Your task to perform on an android device: Open calendar and show me the second week of next month Image 0: 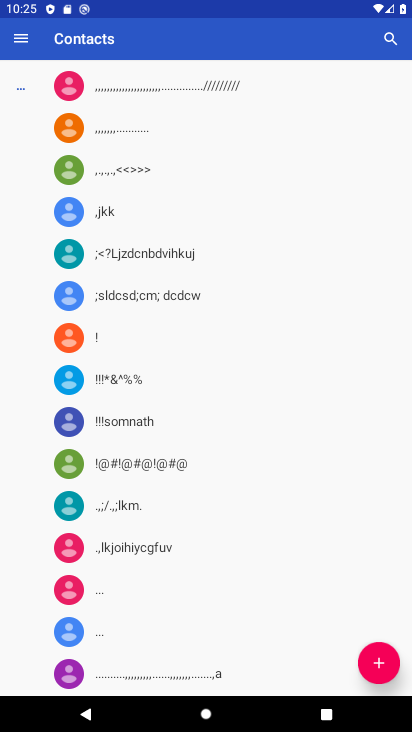
Step 0: press home button
Your task to perform on an android device: Open calendar and show me the second week of next month Image 1: 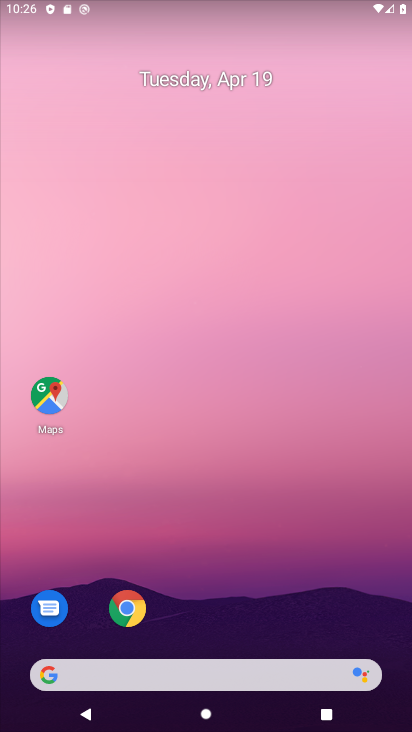
Step 1: drag from (228, 503) to (206, 248)
Your task to perform on an android device: Open calendar and show me the second week of next month Image 2: 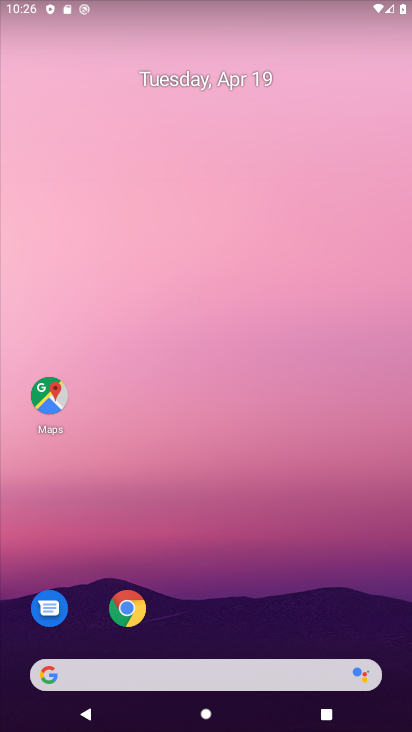
Step 2: drag from (289, 518) to (200, 147)
Your task to perform on an android device: Open calendar and show me the second week of next month Image 3: 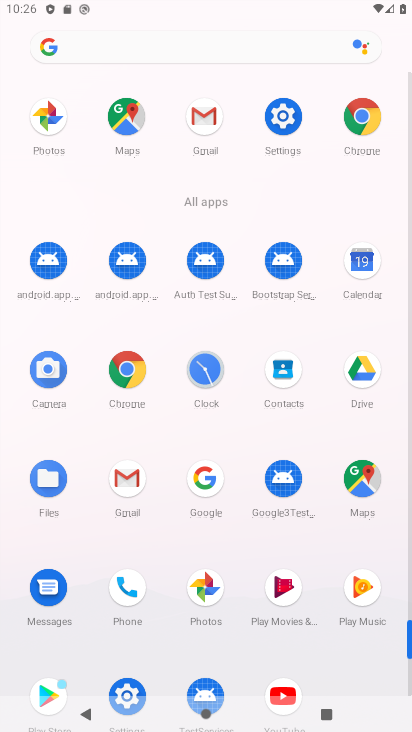
Step 3: click (364, 271)
Your task to perform on an android device: Open calendar and show me the second week of next month Image 4: 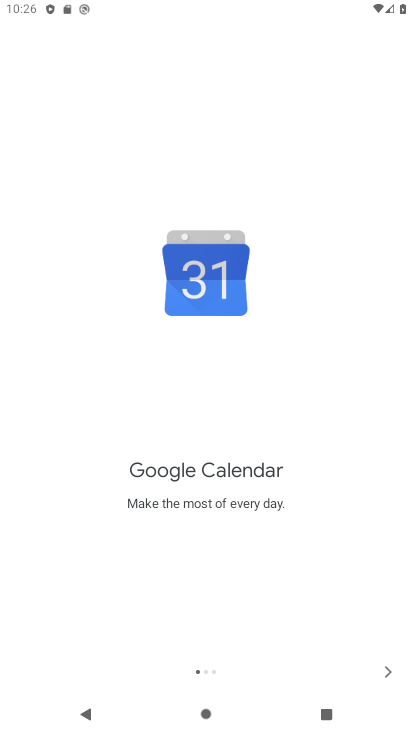
Step 4: click (386, 674)
Your task to perform on an android device: Open calendar and show me the second week of next month Image 5: 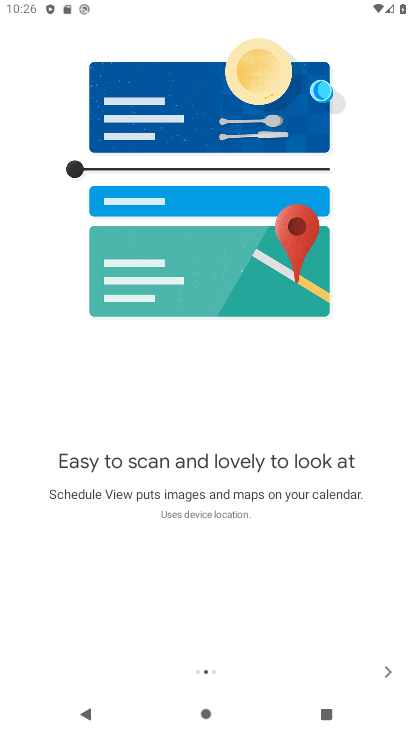
Step 5: click (386, 674)
Your task to perform on an android device: Open calendar and show me the second week of next month Image 6: 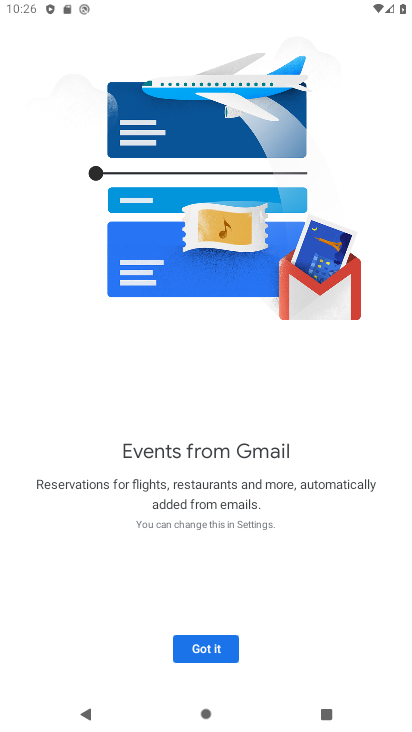
Step 6: click (223, 655)
Your task to perform on an android device: Open calendar and show me the second week of next month Image 7: 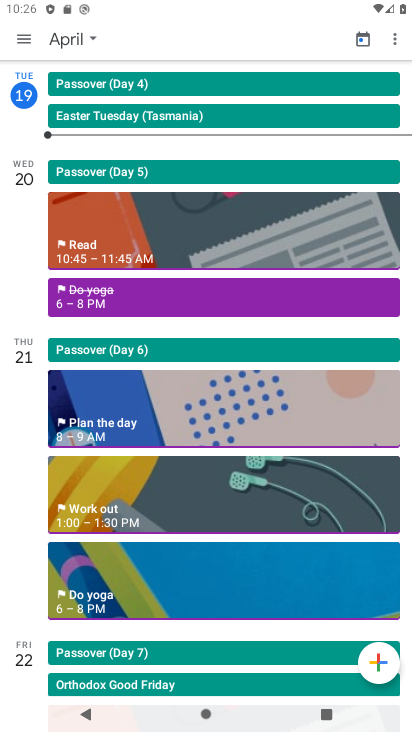
Step 7: click (20, 41)
Your task to perform on an android device: Open calendar and show me the second week of next month Image 8: 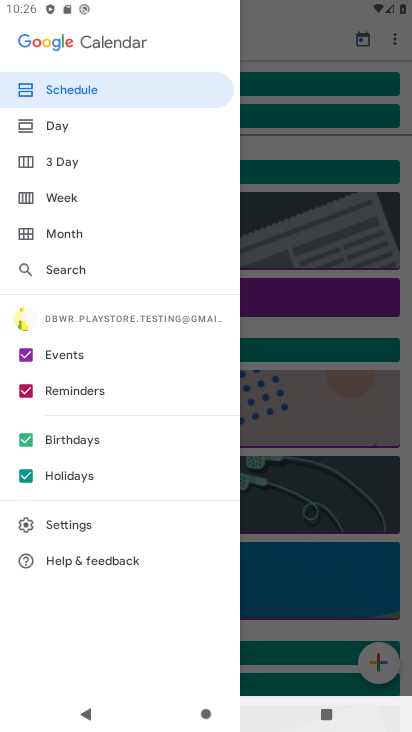
Step 8: click (71, 192)
Your task to perform on an android device: Open calendar and show me the second week of next month Image 9: 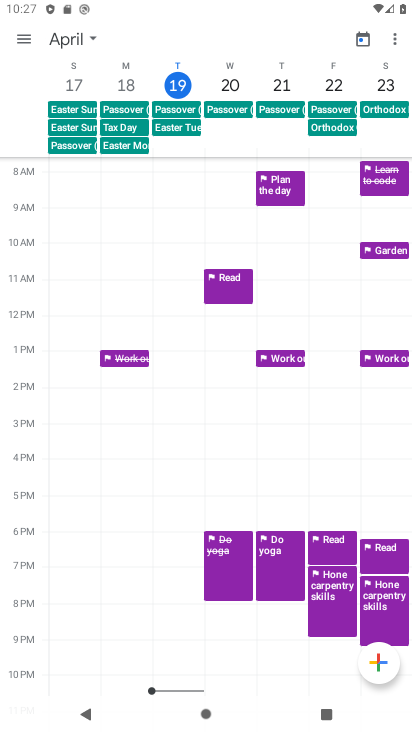
Step 9: click (89, 39)
Your task to perform on an android device: Open calendar and show me the second week of next month Image 10: 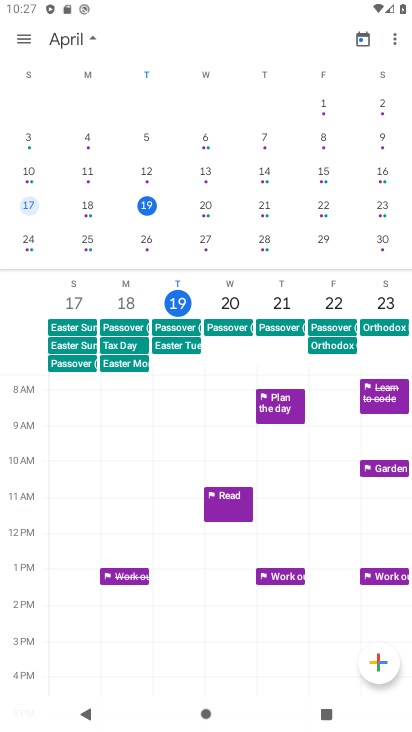
Step 10: drag from (373, 197) to (41, 201)
Your task to perform on an android device: Open calendar and show me the second week of next month Image 11: 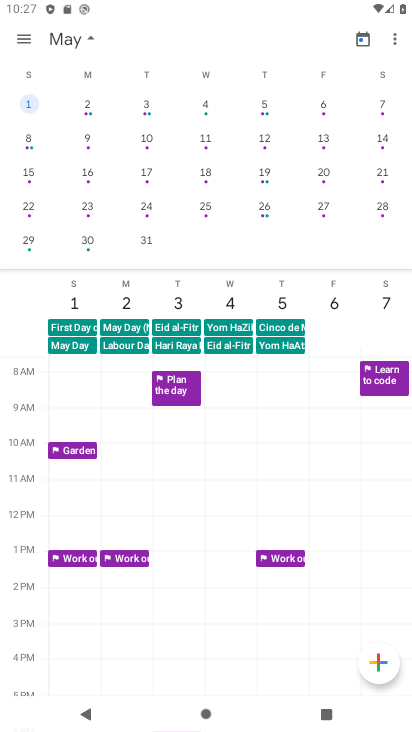
Step 11: click (206, 139)
Your task to perform on an android device: Open calendar and show me the second week of next month Image 12: 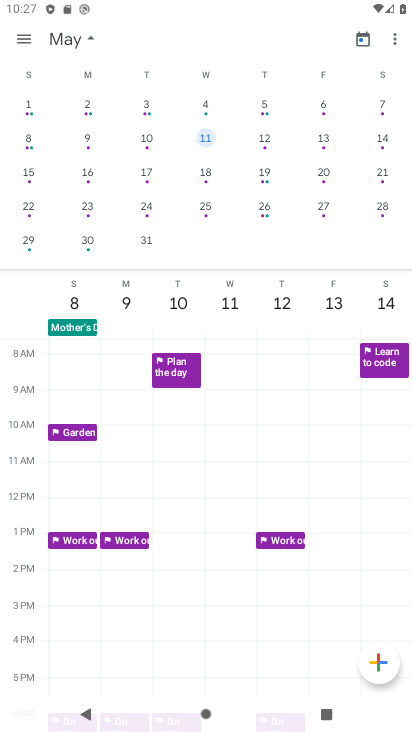
Step 12: task complete